Your task to perform on an android device: check the backup settings in the google photos Image 0: 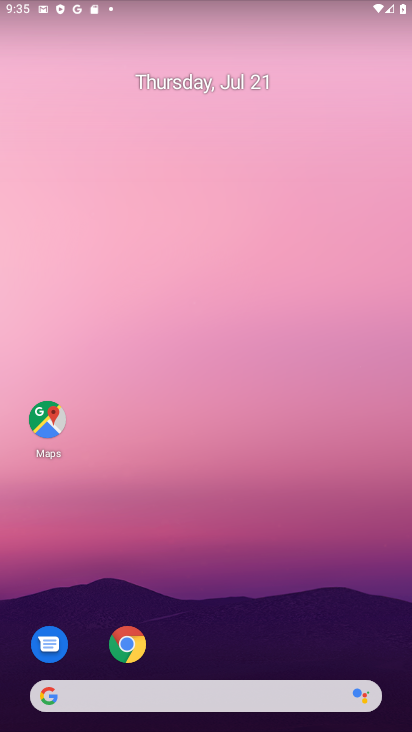
Step 0: press home button
Your task to perform on an android device: check the backup settings in the google photos Image 1: 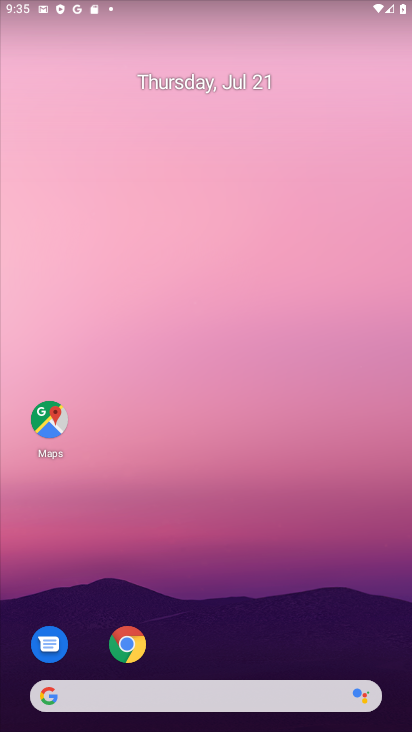
Step 1: drag from (210, 652) to (205, 2)
Your task to perform on an android device: check the backup settings in the google photos Image 2: 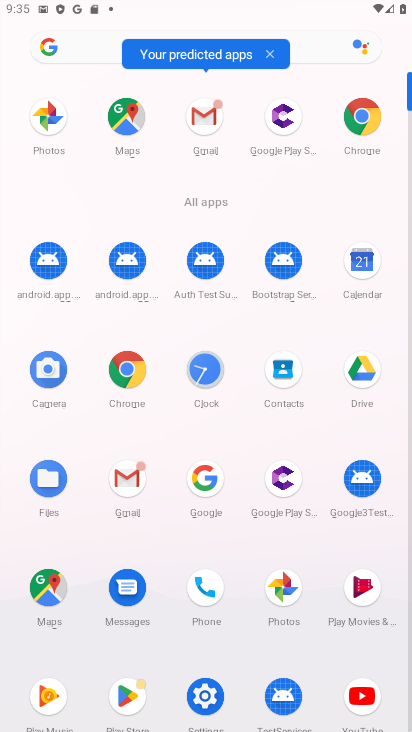
Step 2: click (281, 579)
Your task to perform on an android device: check the backup settings in the google photos Image 3: 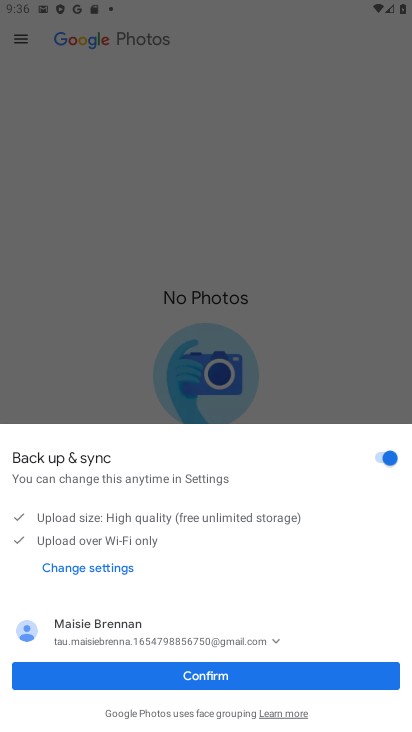
Step 3: click (138, 279)
Your task to perform on an android device: check the backup settings in the google photos Image 4: 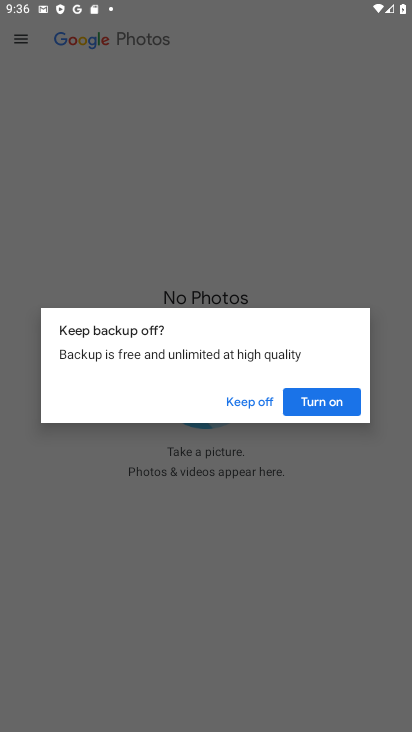
Step 4: click (253, 402)
Your task to perform on an android device: check the backup settings in the google photos Image 5: 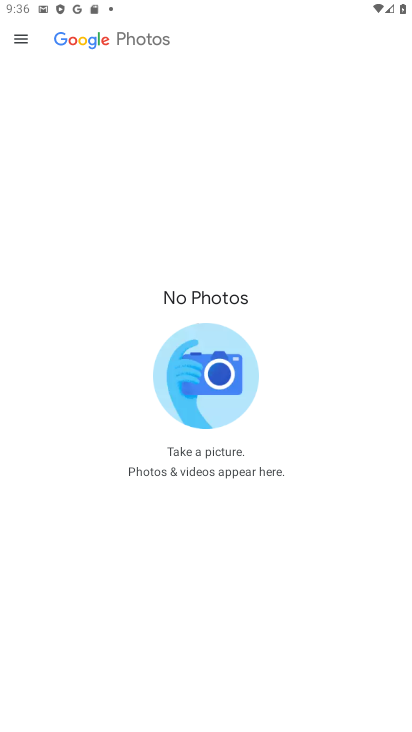
Step 5: click (18, 35)
Your task to perform on an android device: check the backup settings in the google photos Image 6: 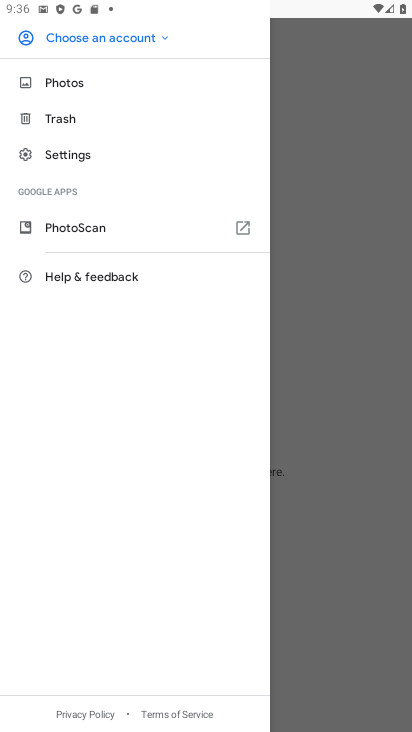
Step 6: click (98, 150)
Your task to perform on an android device: check the backup settings in the google photos Image 7: 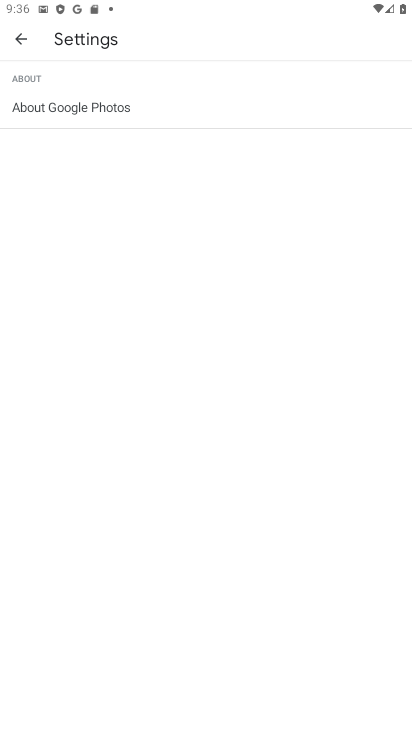
Step 7: click (12, 43)
Your task to perform on an android device: check the backup settings in the google photos Image 8: 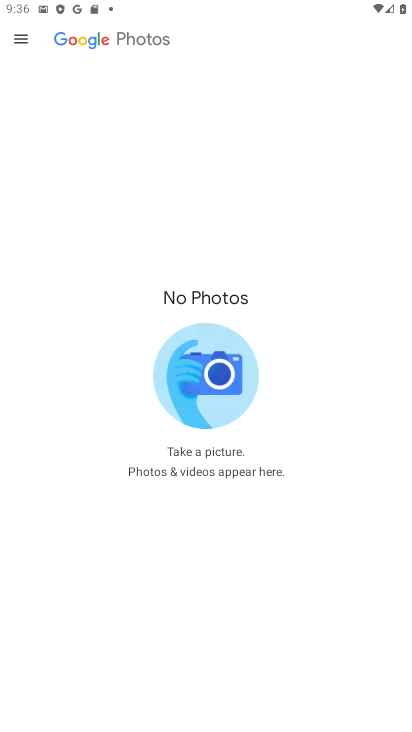
Step 8: click (21, 41)
Your task to perform on an android device: check the backup settings in the google photos Image 9: 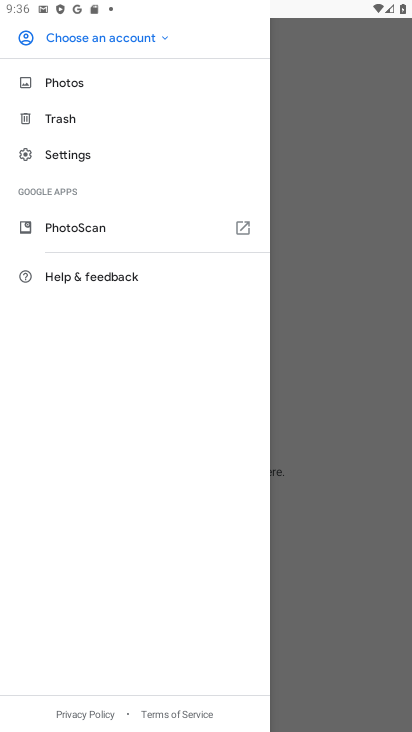
Step 9: click (88, 154)
Your task to perform on an android device: check the backup settings in the google photos Image 10: 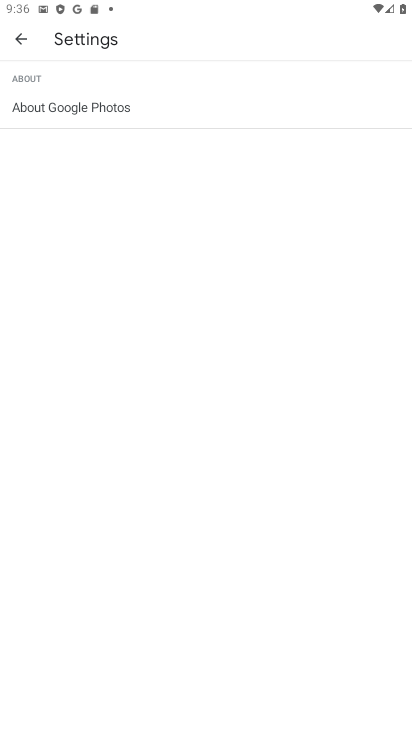
Step 10: task complete